Your task to perform on an android device: set the timer Image 0: 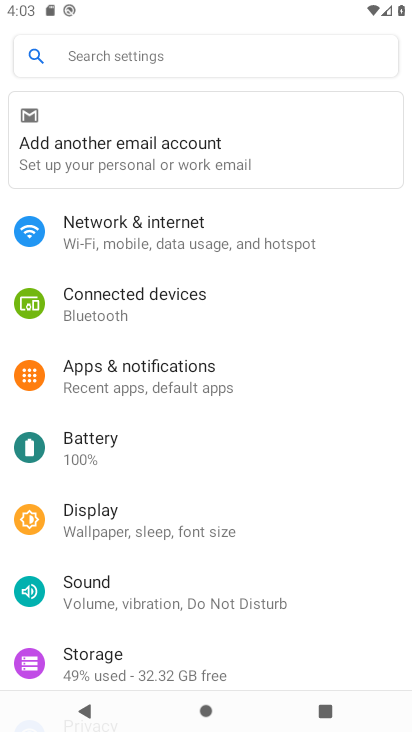
Step 0: press home button
Your task to perform on an android device: set the timer Image 1: 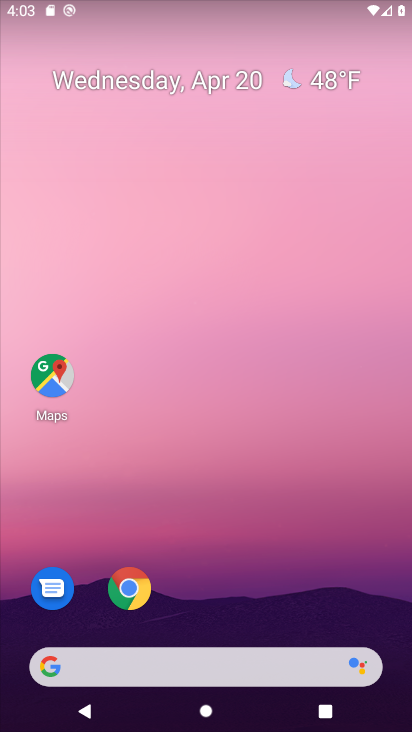
Step 1: drag from (360, 281) to (333, 184)
Your task to perform on an android device: set the timer Image 2: 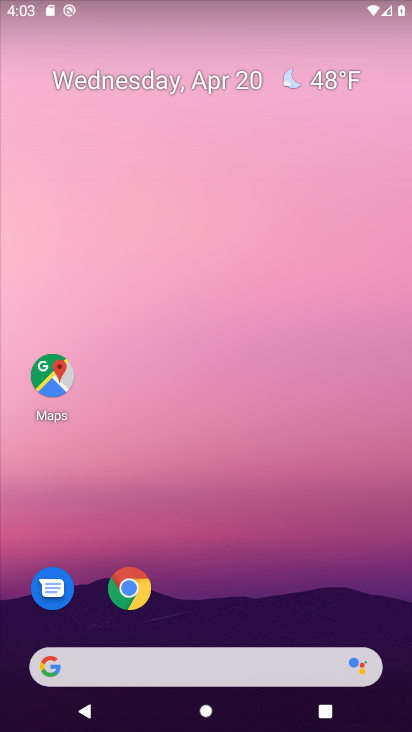
Step 2: drag from (318, 584) to (347, 153)
Your task to perform on an android device: set the timer Image 3: 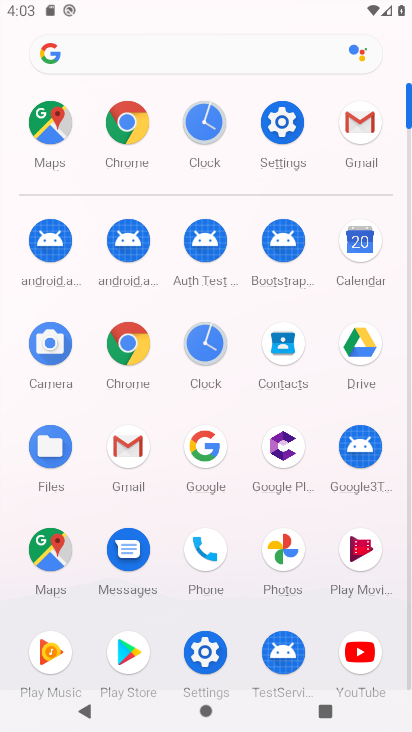
Step 3: click (199, 349)
Your task to perform on an android device: set the timer Image 4: 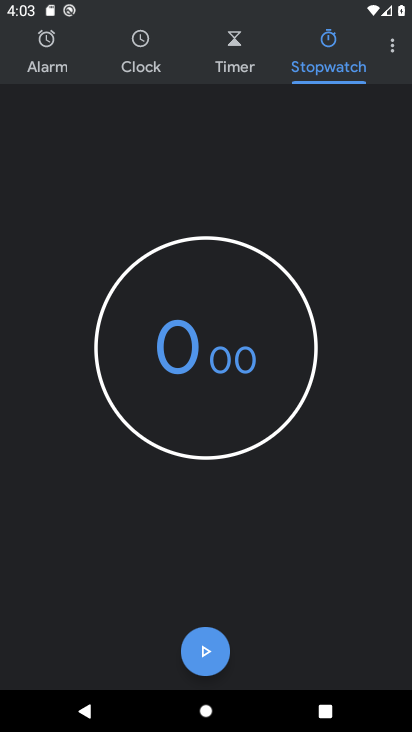
Step 4: click (222, 48)
Your task to perform on an android device: set the timer Image 5: 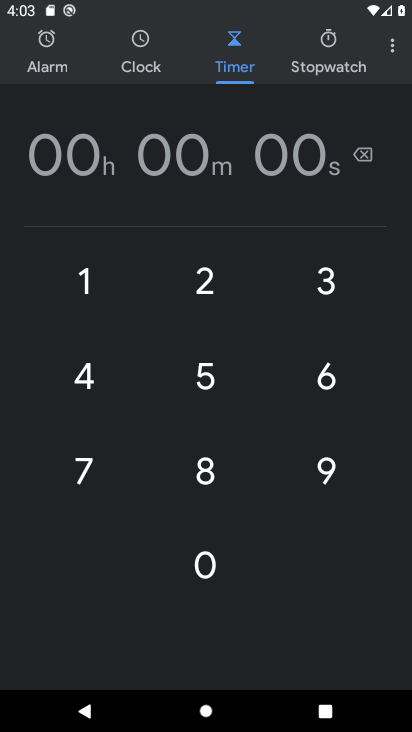
Step 5: click (211, 380)
Your task to perform on an android device: set the timer Image 6: 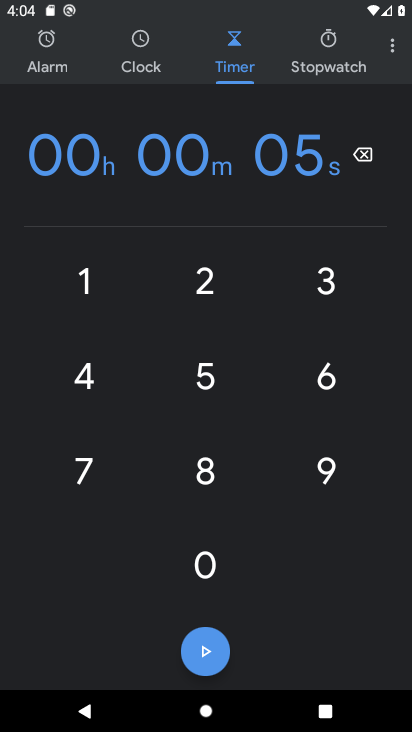
Step 6: task complete